Your task to perform on an android device: turn off smart reply in the gmail app Image 0: 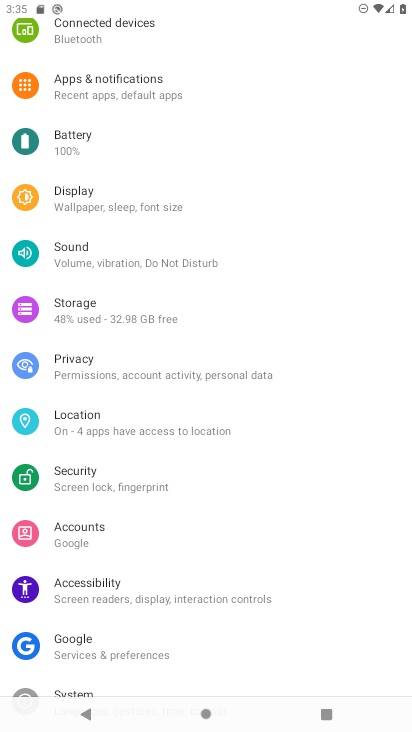
Step 0: press home button
Your task to perform on an android device: turn off smart reply in the gmail app Image 1: 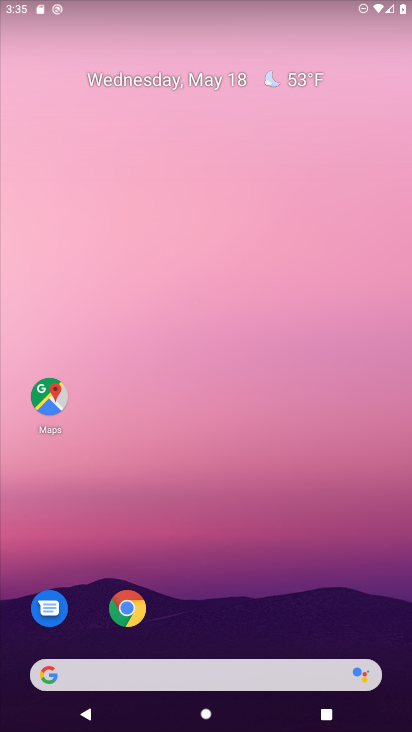
Step 1: drag from (150, 634) to (199, 258)
Your task to perform on an android device: turn off smart reply in the gmail app Image 2: 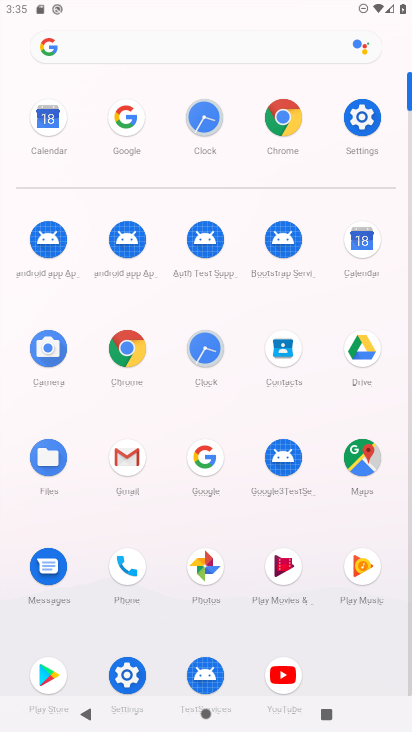
Step 2: click (134, 470)
Your task to perform on an android device: turn off smart reply in the gmail app Image 3: 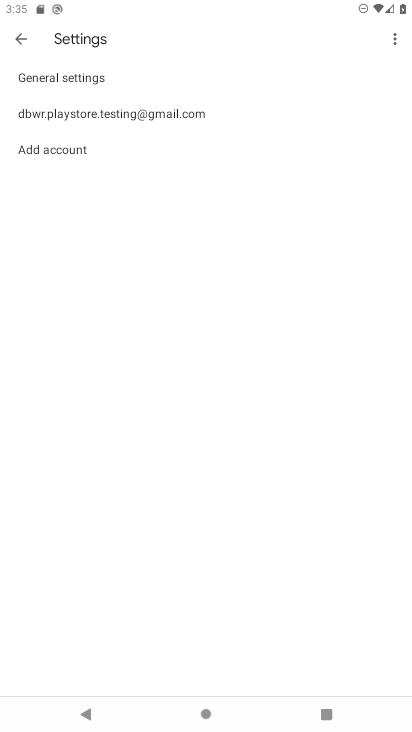
Step 3: click (18, 40)
Your task to perform on an android device: turn off smart reply in the gmail app Image 4: 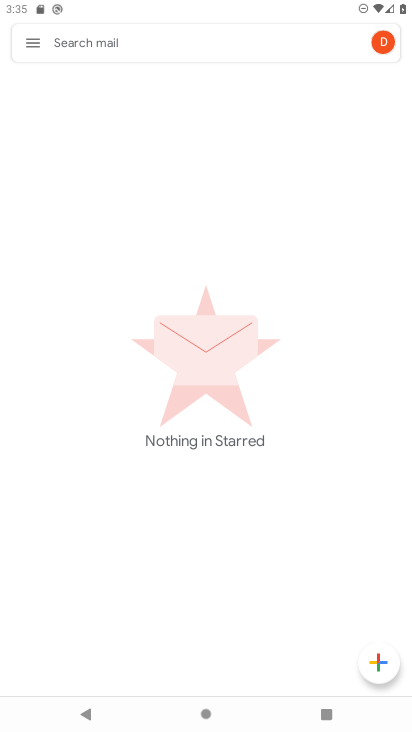
Step 4: click (38, 41)
Your task to perform on an android device: turn off smart reply in the gmail app Image 5: 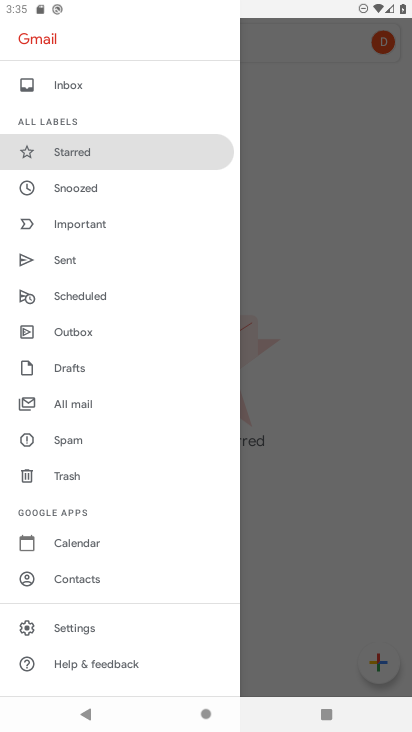
Step 5: click (90, 620)
Your task to perform on an android device: turn off smart reply in the gmail app Image 6: 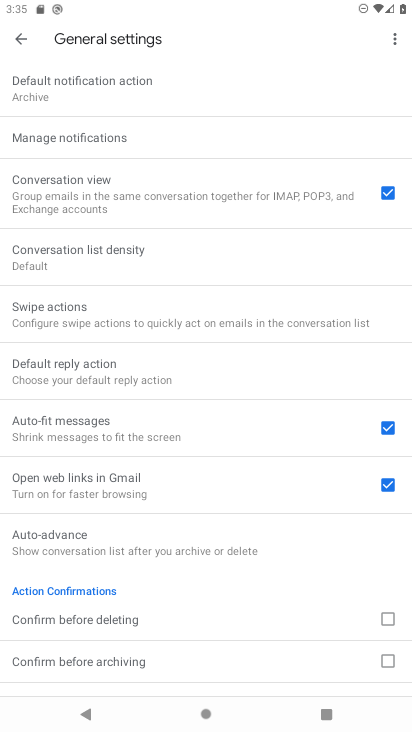
Step 6: click (20, 29)
Your task to perform on an android device: turn off smart reply in the gmail app Image 7: 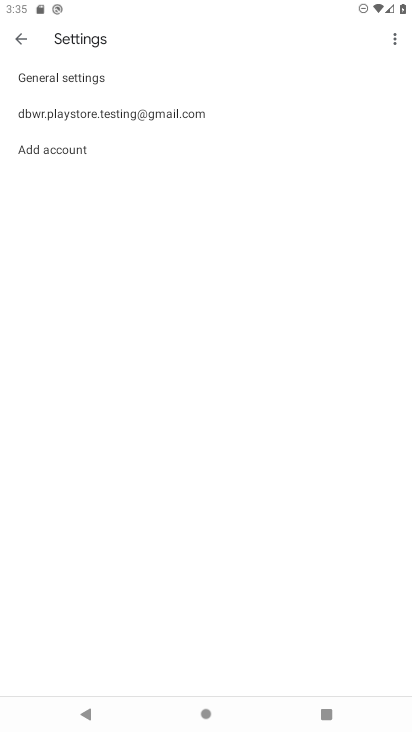
Step 7: click (71, 114)
Your task to perform on an android device: turn off smart reply in the gmail app Image 8: 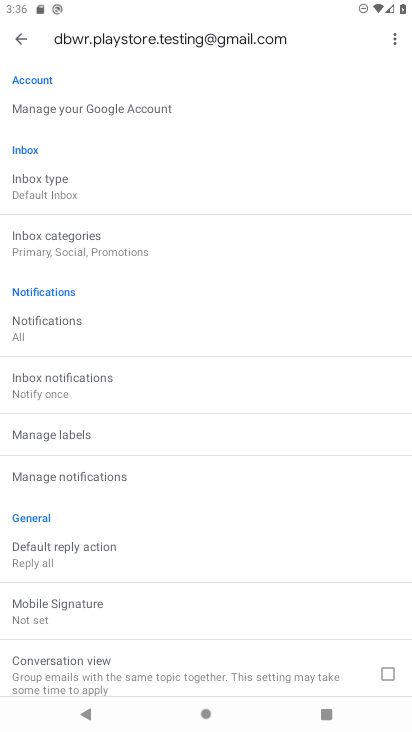
Step 8: drag from (54, 650) to (163, 207)
Your task to perform on an android device: turn off smart reply in the gmail app Image 9: 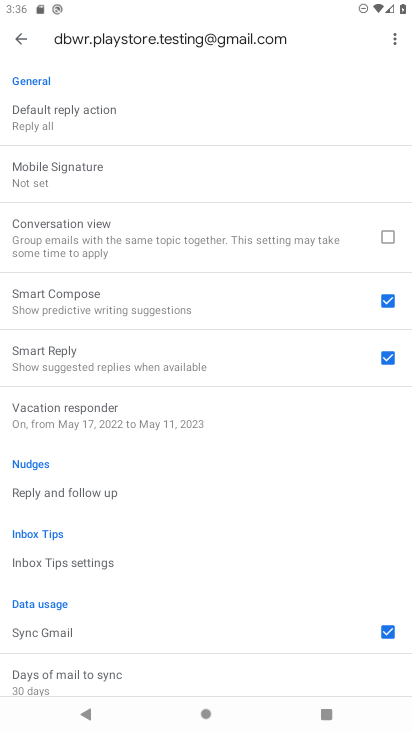
Step 9: click (381, 360)
Your task to perform on an android device: turn off smart reply in the gmail app Image 10: 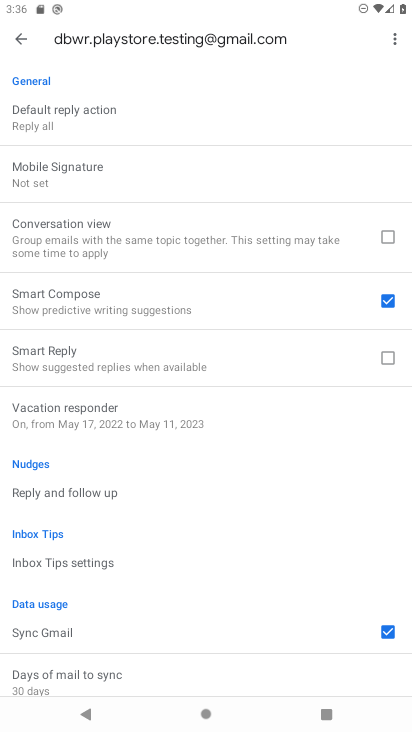
Step 10: task complete